Your task to perform on an android device: open sync settings in chrome Image 0: 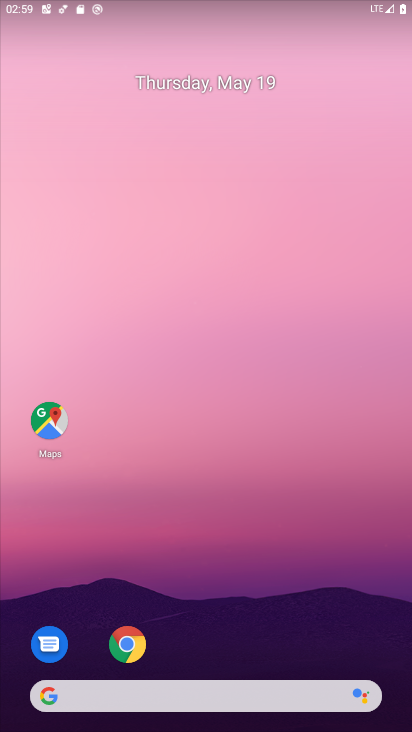
Step 0: drag from (165, 368) to (158, 141)
Your task to perform on an android device: open sync settings in chrome Image 1: 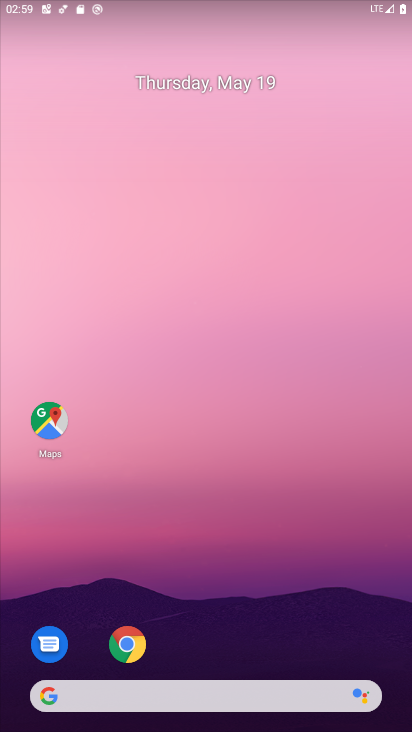
Step 1: drag from (143, 569) to (235, 157)
Your task to perform on an android device: open sync settings in chrome Image 2: 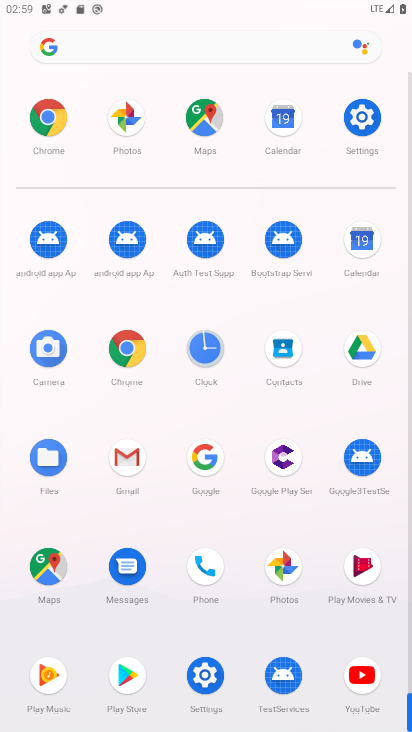
Step 2: click (129, 342)
Your task to perform on an android device: open sync settings in chrome Image 3: 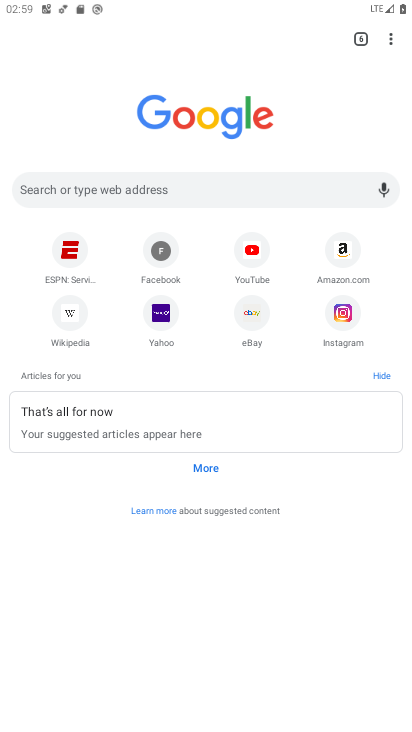
Step 3: click (384, 39)
Your task to perform on an android device: open sync settings in chrome Image 4: 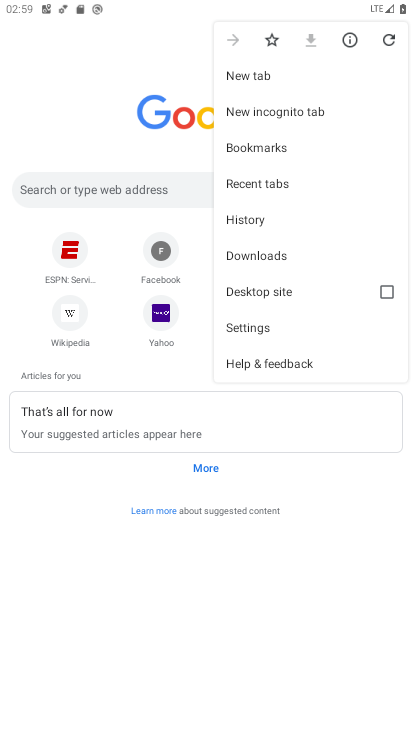
Step 4: click (276, 327)
Your task to perform on an android device: open sync settings in chrome Image 5: 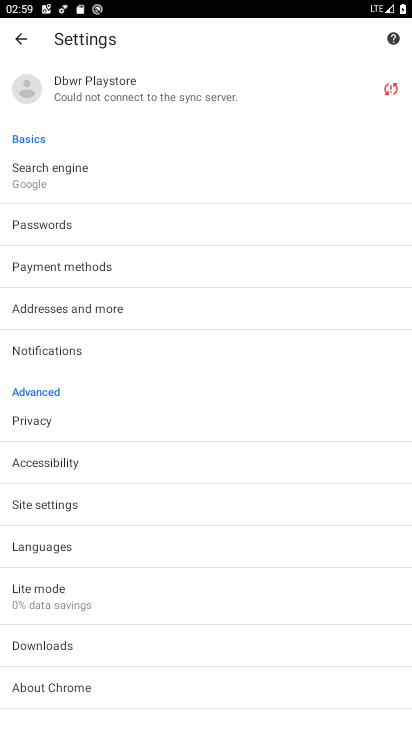
Step 5: click (120, 85)
Your task to perform on an android device: open sync settings in chrome Image 6: 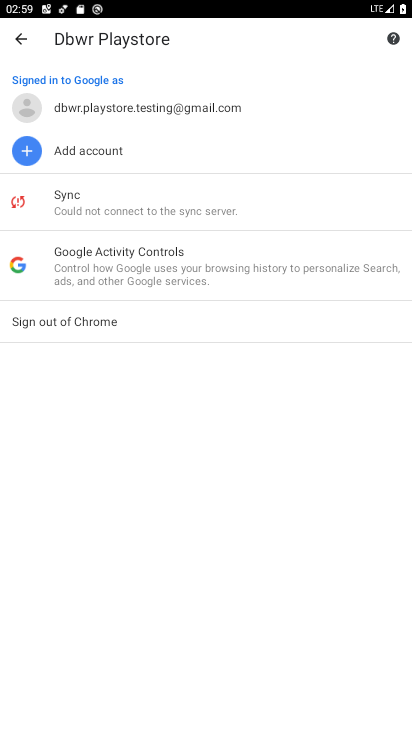
Step 6: task complete